Your task to perform on an android device: Open location settings Image 0: 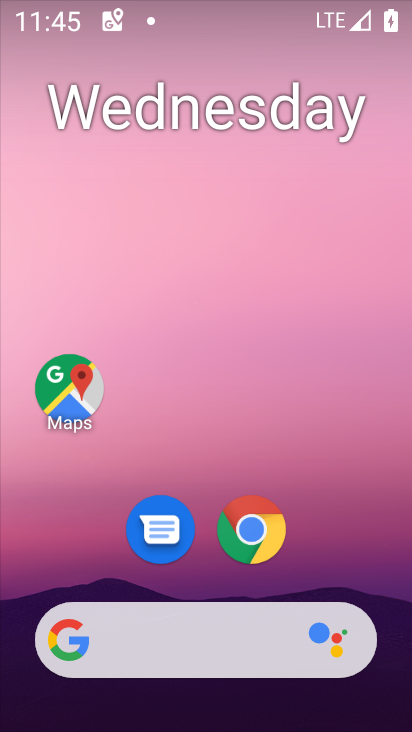
Step 0: drag from (392, 640) to (334, 144)
Your task to perform on an android device: Open location settings Image 1: 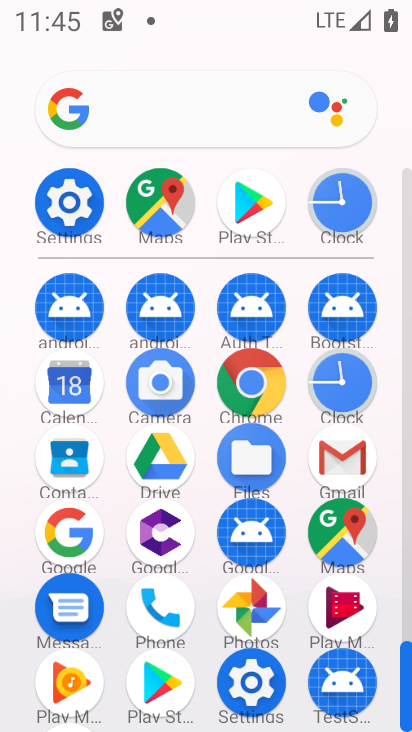
Step 1: click (254, 681)
Your task to perform on an android device: Open location settings Image 2: 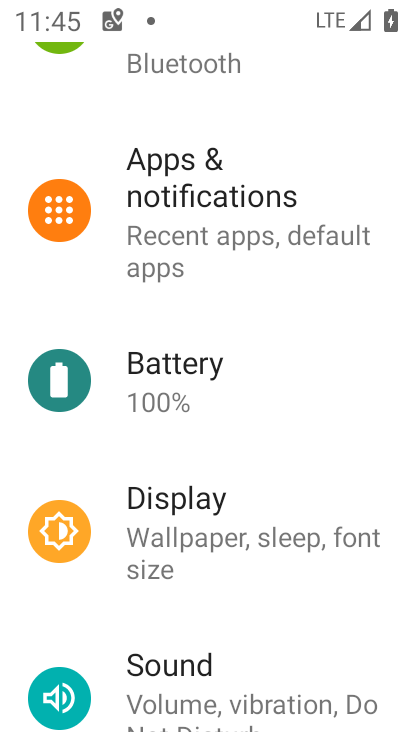
Step 2: drag from (376, 633) to (351, 212)
Your task to perform on an android device: Open location settings Image 3: 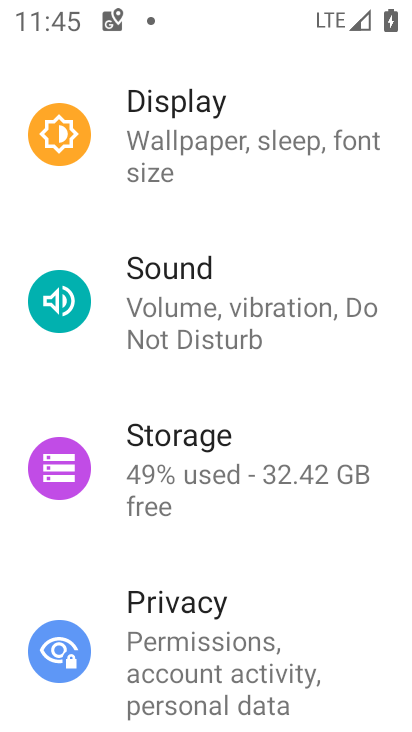
Step 3: drag from (360, 642) to (355, 218)
Your task to perform on an android device: Open location settings Image 4: 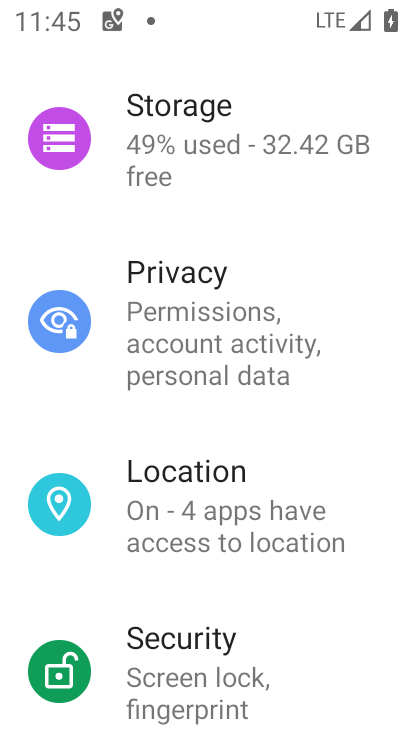
Step 4: click (185, 519)
Your task to perform on an android device: Open location settings Image 5: 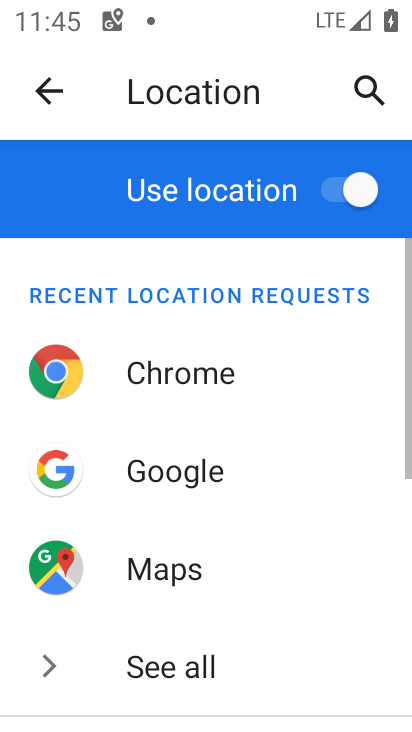
Step 5: drag from (306, 691) to (282, 354)
Your task to perform on an android device: Open location settings Image 6: 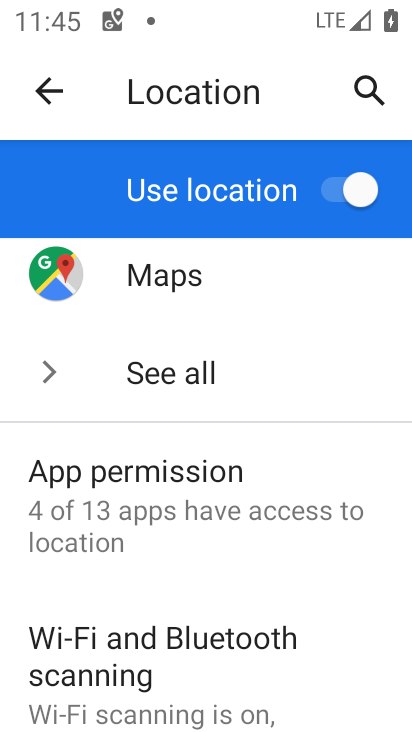
Step 6: drag from (340, 635) to (322, 327)
Your task to perform on an android device: Open location settings Image 7: 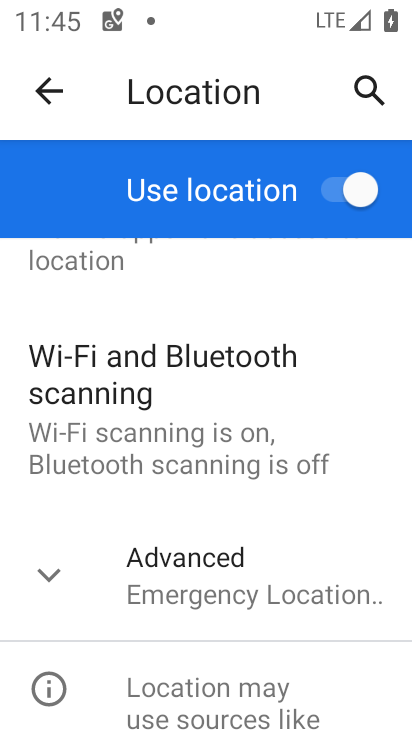
Step 7: click (50, 577)
Your task to perform on an android device: Open location settings Image 8: 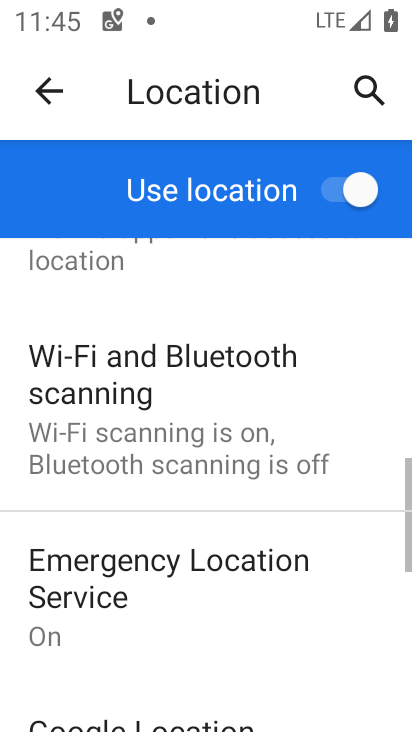
Step 8: task complete